Your task to perform on an android device: Open the Play Movies app and select the watchlist tab. Image 0: 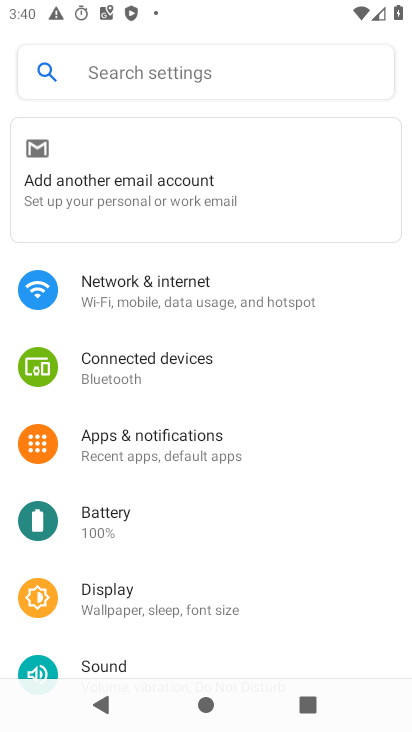
Step 0: press home button
Your task to perform on an android device: Open the Play Movies app and select the watchlist tab. Image 1: 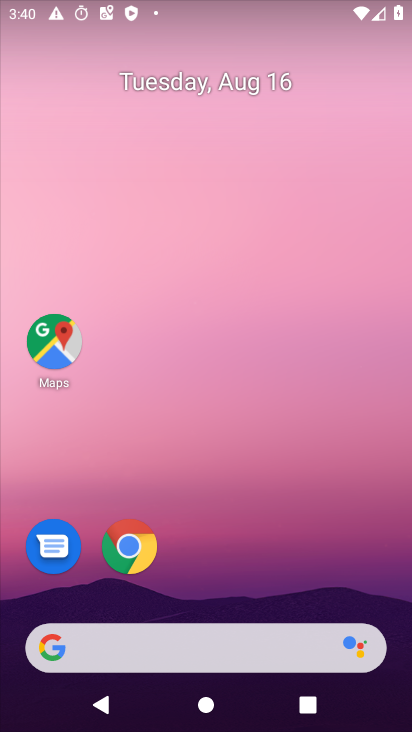
Step 1: drag from (334, 598) to (337, 93)
Your task to perform on an android device: Open the Play Movies app and select the watchlist tab. Image 2: 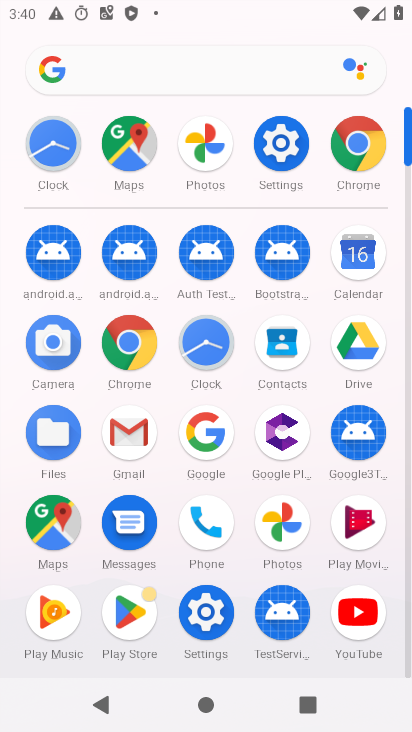
Step 2: click (362, 521)
Your task to perform on an android device: Open the Play Movies app and select the watchlist tab. Image 3: 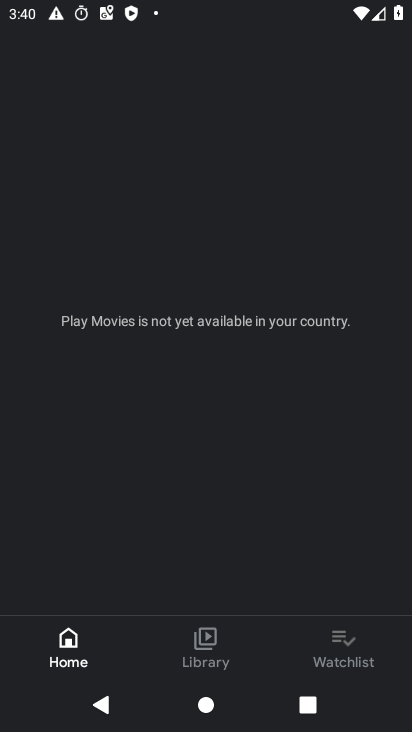
Step 3: click (343, 646)
Your task to perform on an android device: Open the Play Movies app and select the watchlist tab. Image 4: 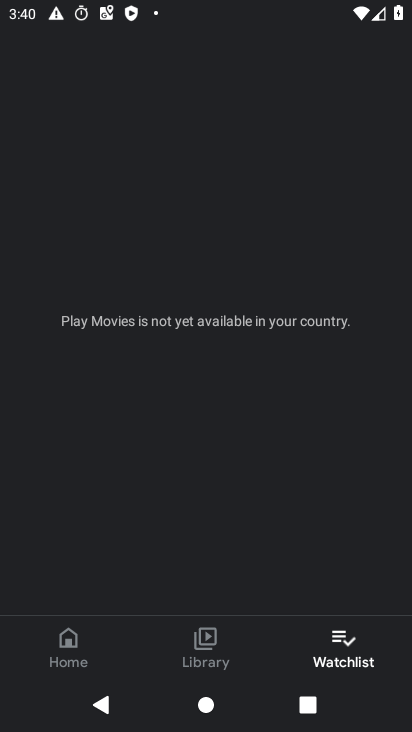
Step 4: task complete